Your task to perform on an android device: Open Youtube and go to the subscriptions tab Image 0: 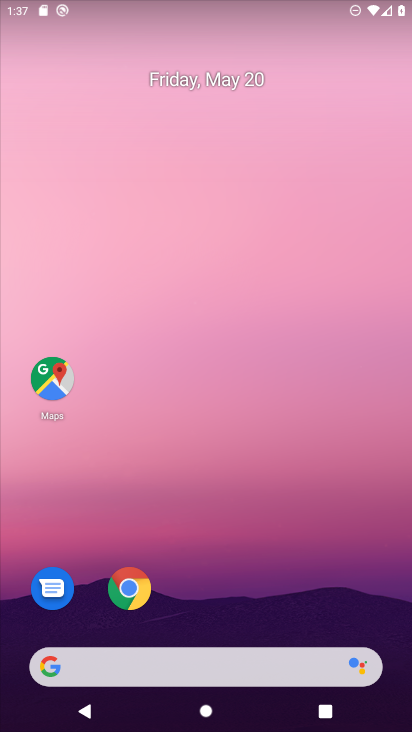
Step 0: drag from (394, 632) to (317, 127)
Your task to perform on an android device: Open Youtube and go to the subscriptions tab Image 1: 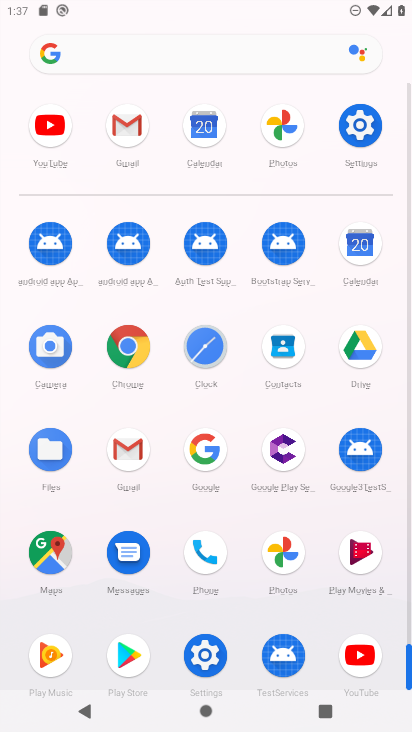
Step 1: click (356, 652)
Your task to perform on an android device: Open Youtube and go to the subscriptions tab Image 2: 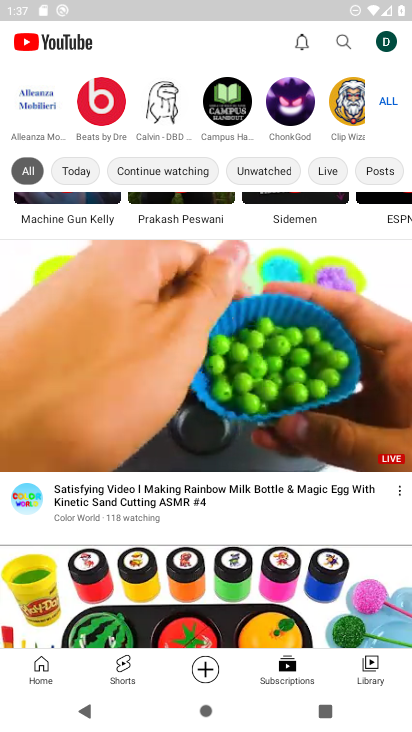
Step 2: click (277, 669)
Your task to perform on an android device: Open Youtube and go to the subscriptions tab Image 3: 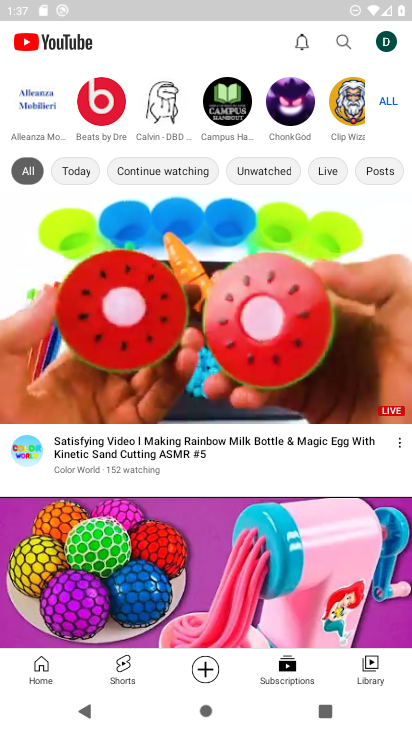
Step 3: task complete